Your task to perform on an android device: change the clock style Image 0: 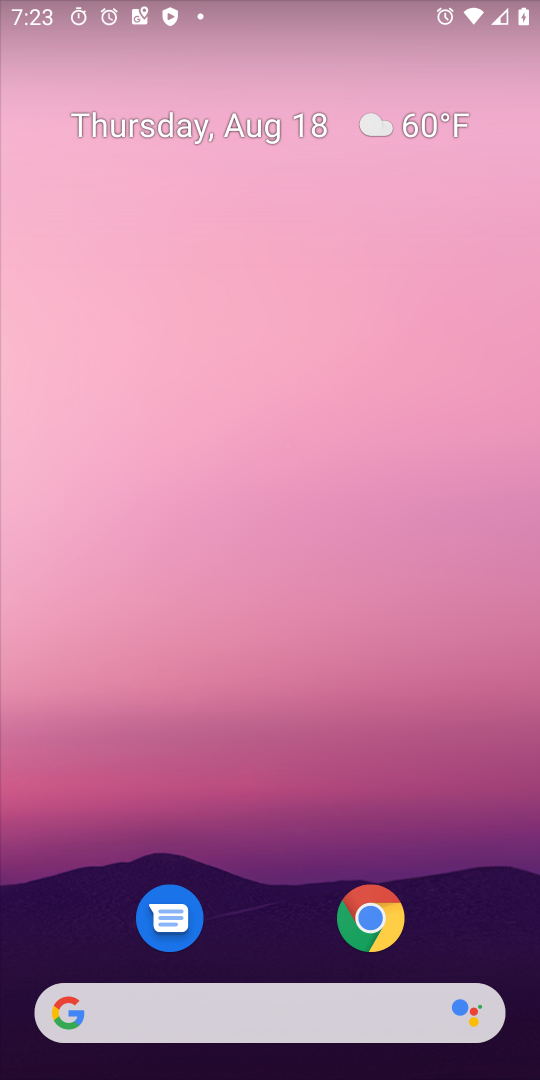
Step 0: press home button
Your task to perform on an android device: change the clock style Image 1: 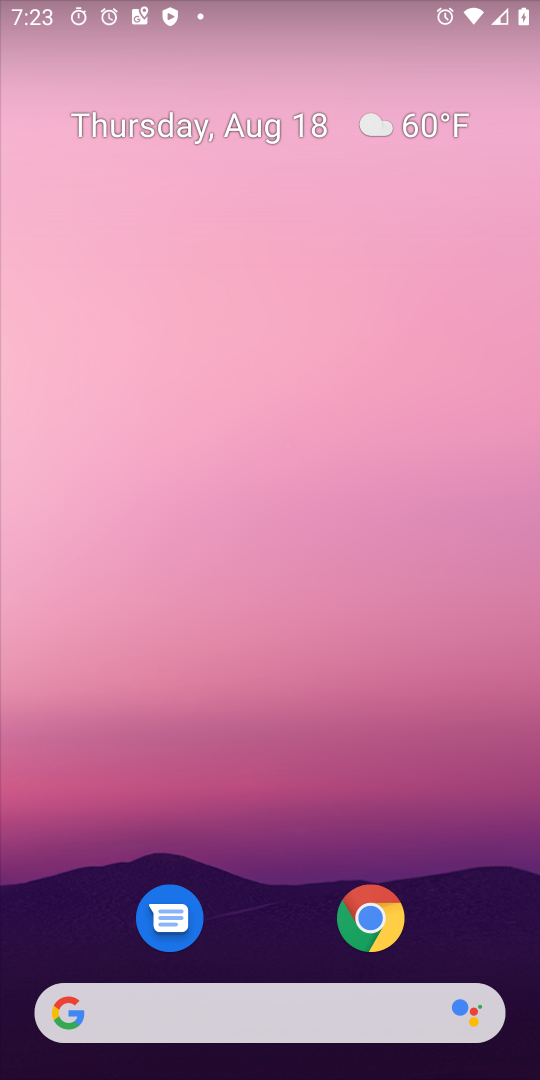
Step 1: click (416, 34)
Your task to perform on an android device: change the clock style Image 2: 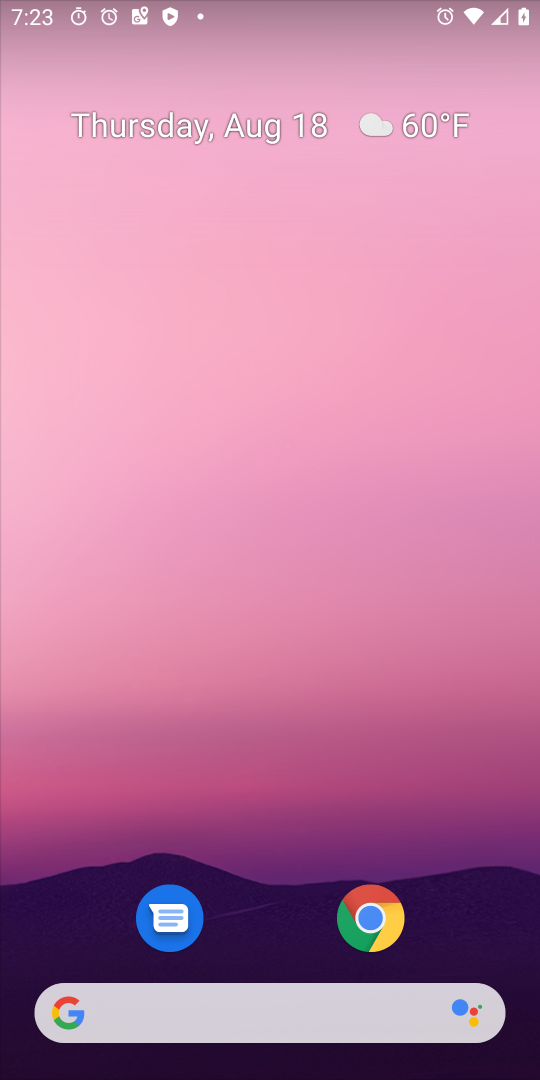
Step 2: drag from (275, 944) to (374, 5)
Your task to perform on an android device: change the clock style Image 3: 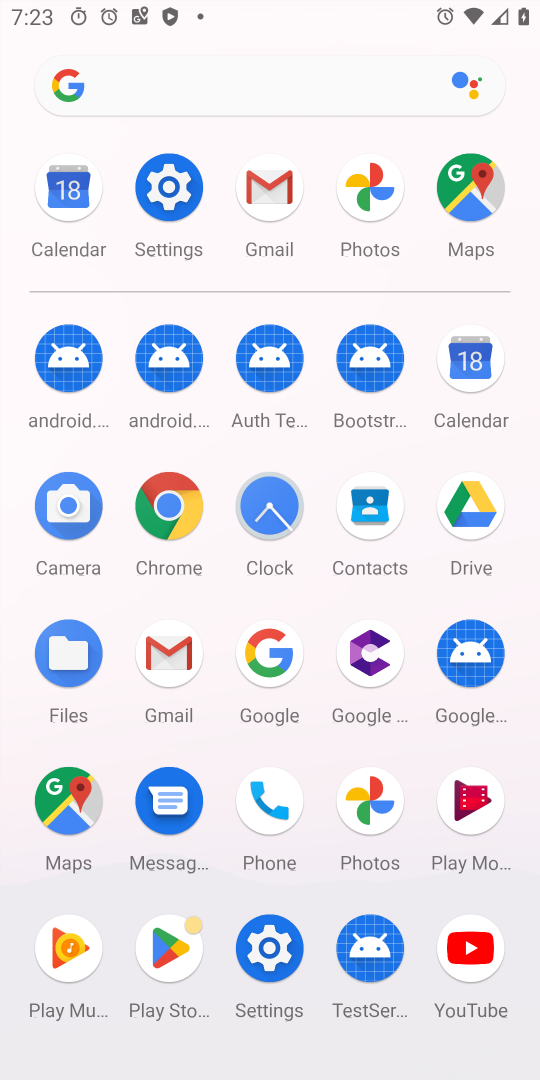
Step 3: click (258, 522)
Your task to perform on an android device: change the clock style Image 4: 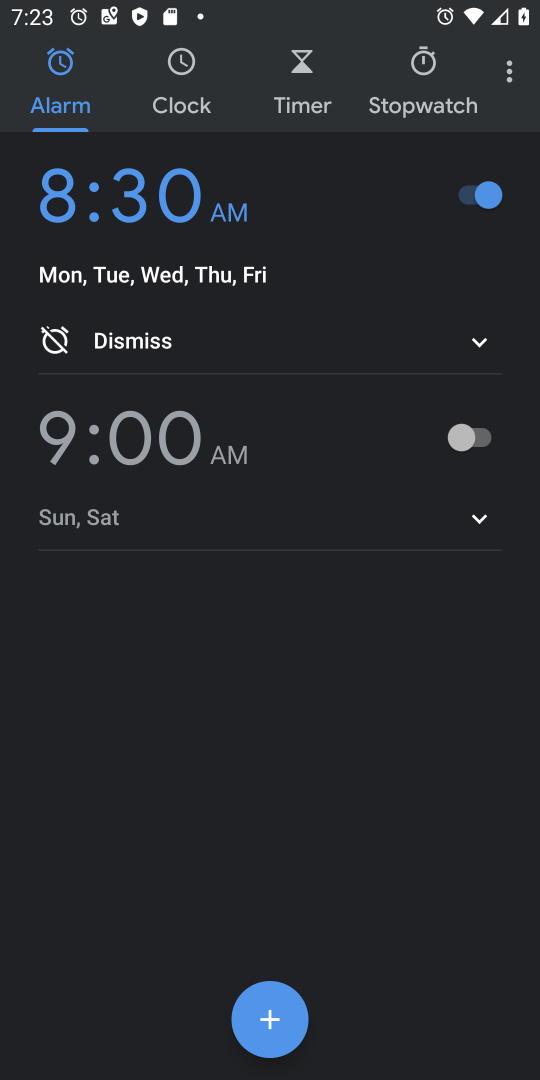
Step 4: click (509, 62)
Your task to perform on an android device: change the clock style Image 5: 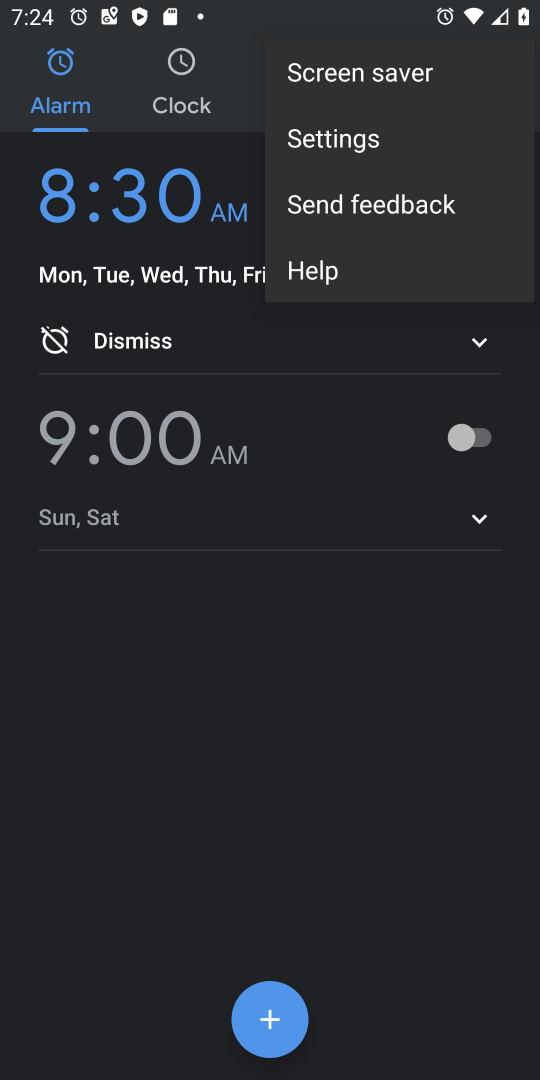
Step 5: click (344, 148)
Your task to perform on an android device: change the clock style Image 6: 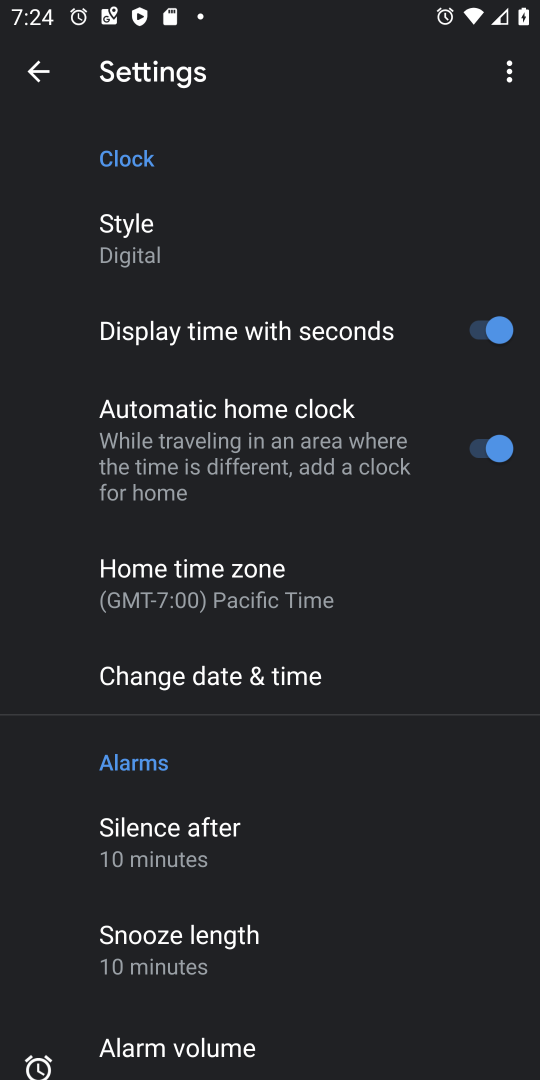
Step 6: click (125, 251)
Your task to perform on an android device: change the clock style Image 7: 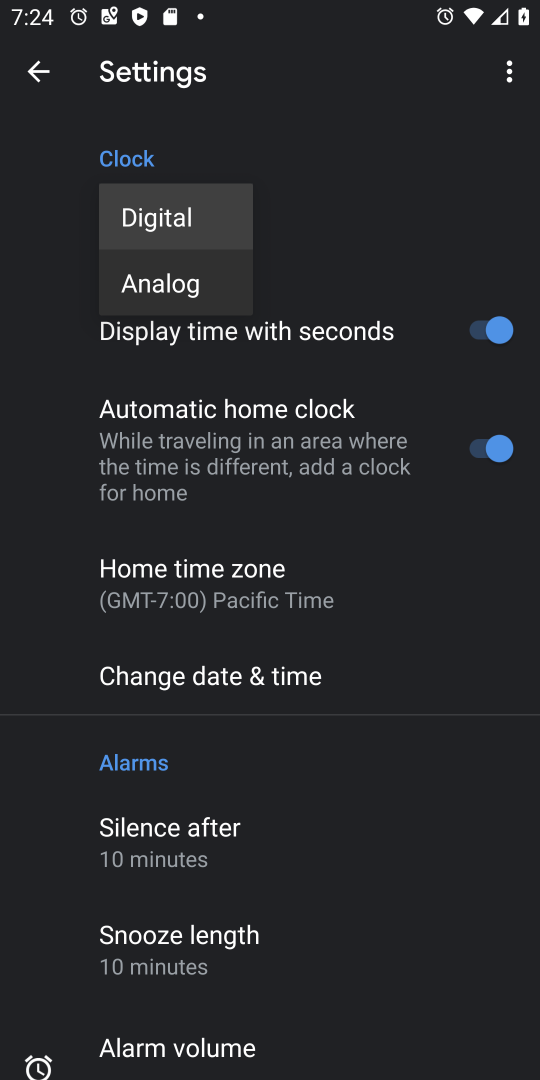
Step 7: click (154, 289)
Your task to perform on an android device: change the clock style Image 8: 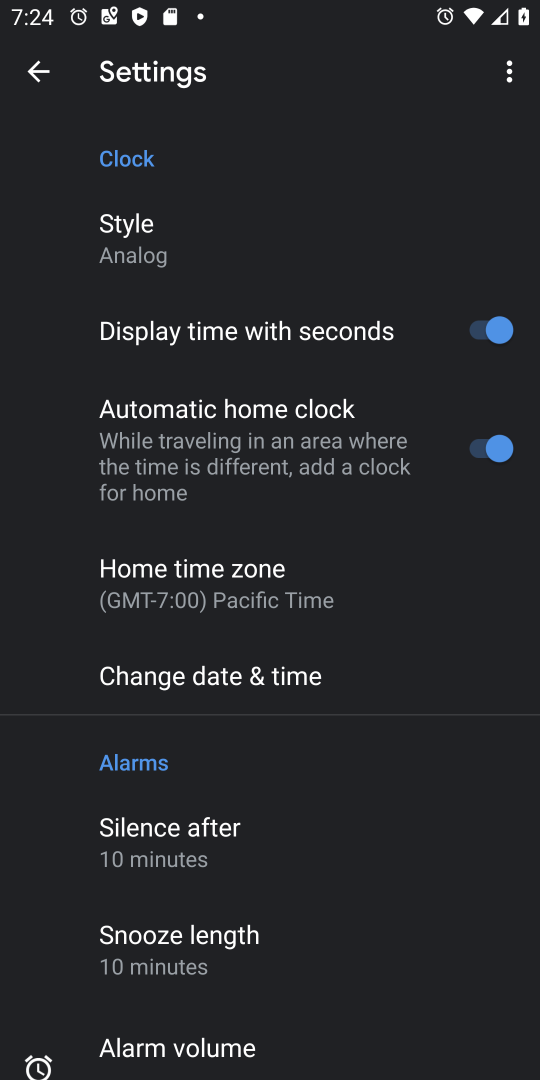
Step 8: task complete